Your task to perform on an android device: Go to Google maps Image 0: 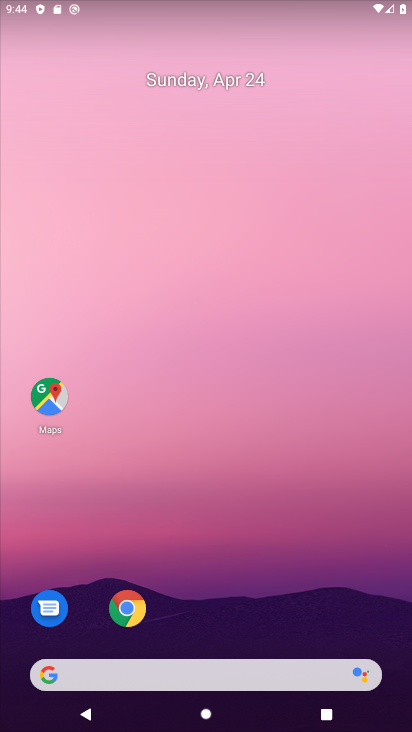
Step 0: drag from (303, 606) to (249, 148)
Your task to perform on an android device: Go to Google maps Image 1: 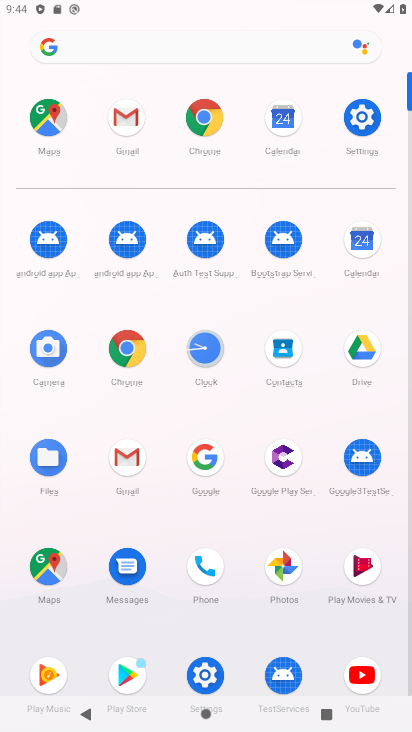
Step 1: click (59, 115)
Your task to perform on an android device: Go to Google maps Image 2: 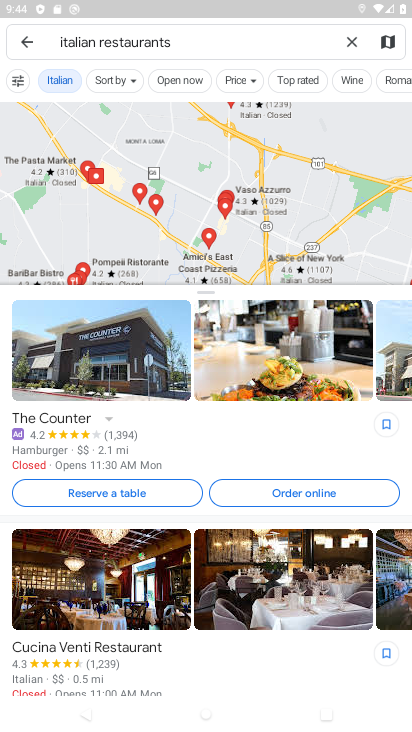
Step 2: click (177, 220)
Your task to perform on an android device: Go to Google maps Image 3: 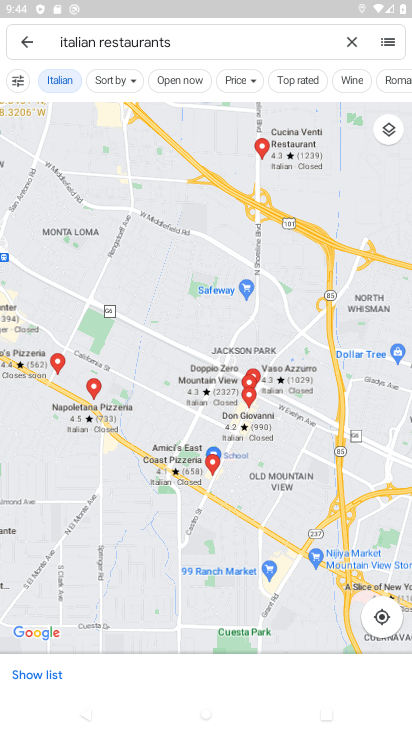
Step 3: task complete